Your task to perform on an android device: move a message to another label in the gmail app Image 0: 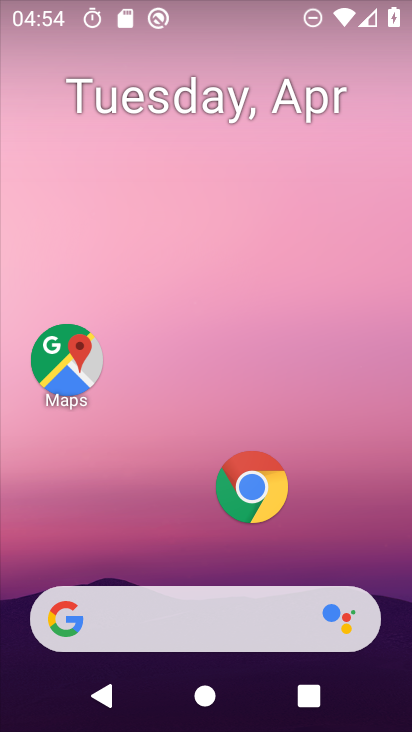
Step 0: drag from (157, 521) to (296, 9)
Your task to perform on an android device: move a message to another label in the gmail app Image 1: 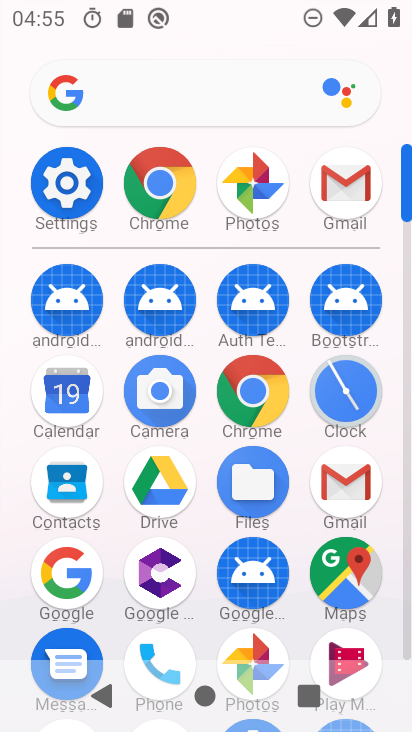
Step 1: click (342, 181)
Your task to perform on an android device: move a message to another label in the gmail app Image 2: 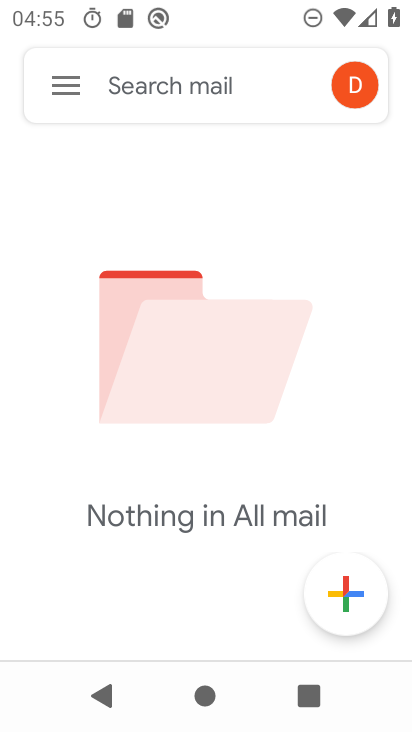
Step 2: click (62, 79)
Your task to perform on an android device: move a message to another label in the gmail app Image 3: 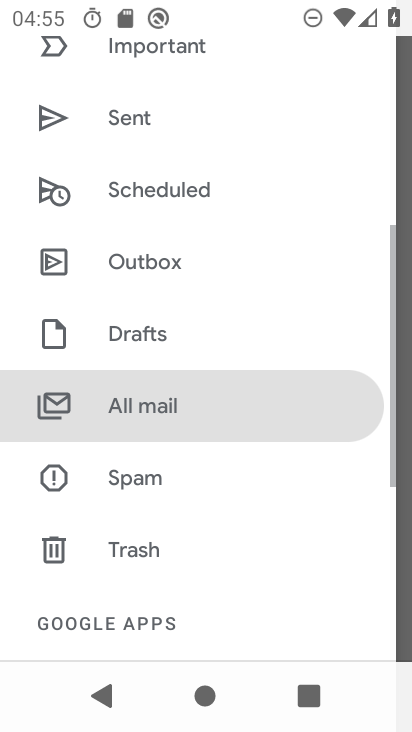
Step 3: click (139, 405)
Your task to perform on an android device: move a message to another label in the gmail app Image 4: 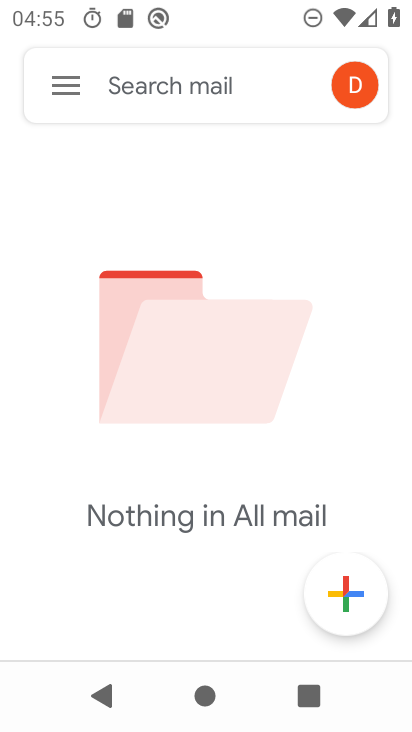
Step 4: task complete